Your task to perform on an android device: What's the weather going to be tomorrow? Image 0: 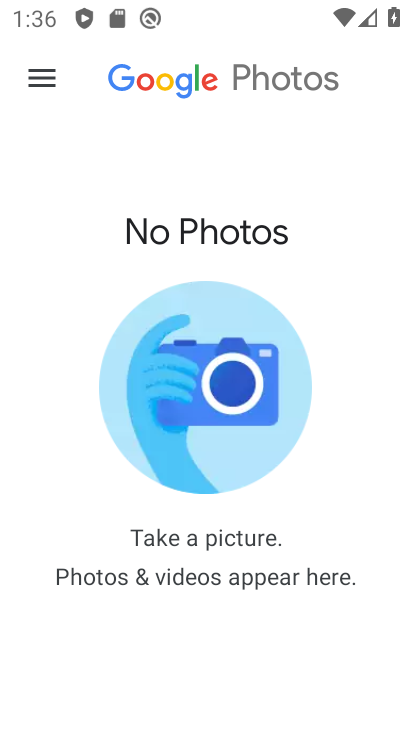
Step 0: press home button
Your task to perform on an android device: What's the weather going to be tomorrow? Image 1: 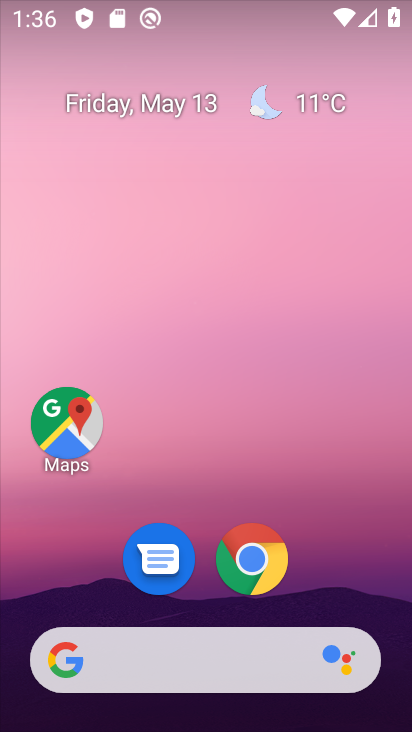
Step 1: click (319, 94)
Your task to perform on an android device: What's the weather going to be tomorrow? Image 2: 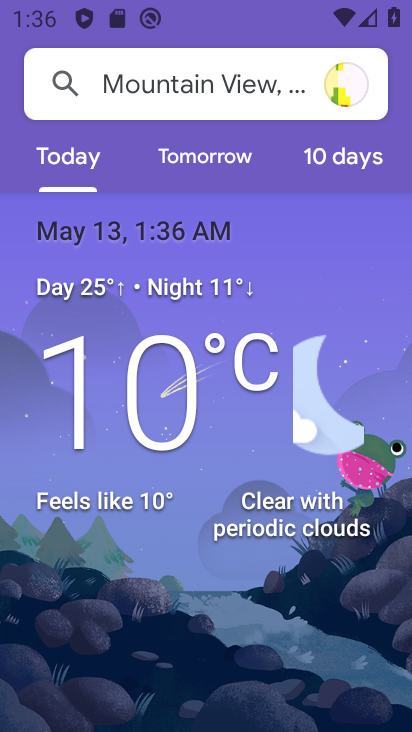
Step 2: click (205, 160)
Your task to perform on an android device: What's the weather going to be tomorrow? Image 3: 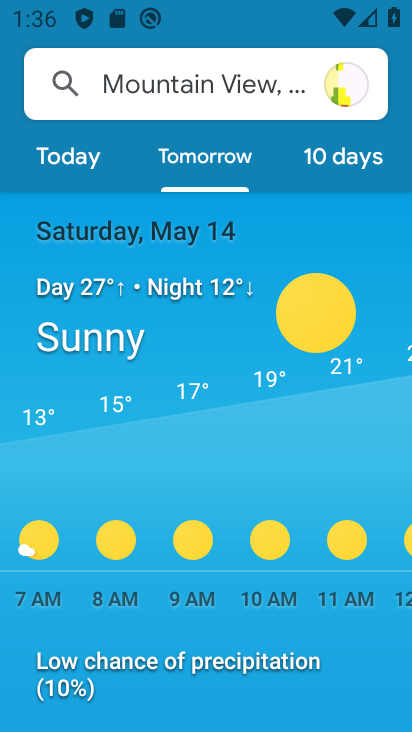
Step 3: task complete